Your task to perform on an android device: Open Google Chrome Image 0: 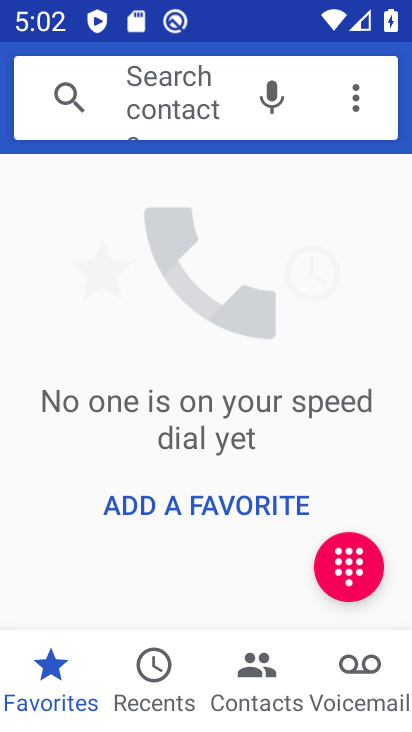
Step 0: press home button
Your task to perform on an android device: Open Google Chrome Image 1: 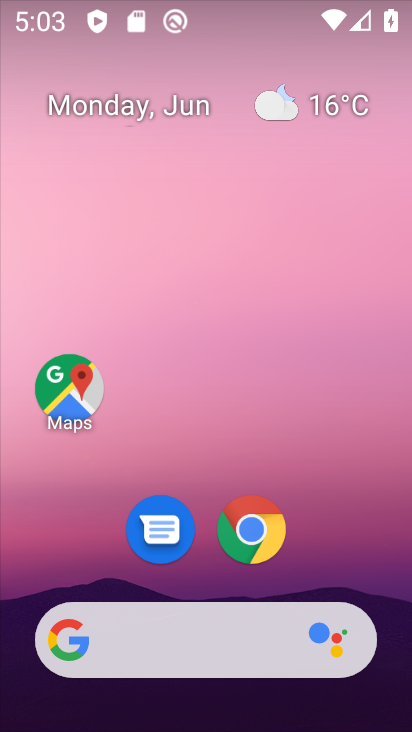
Step 1: drag from (392, 594) to (323, 134)
Your task to perform on an android device: Open Google Chrome Image 2: 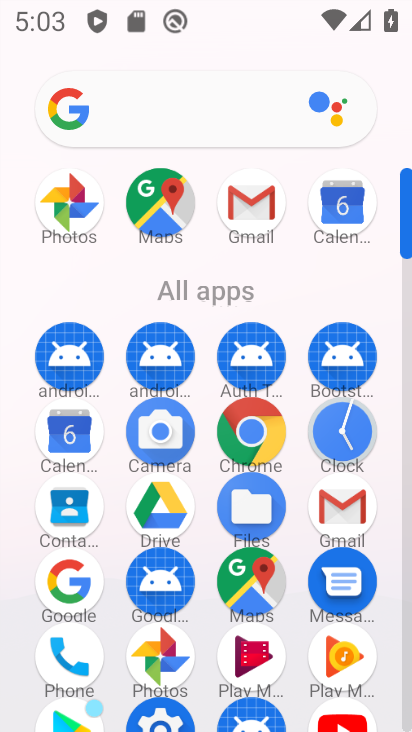
Step 2: click (261, 446)
Your task to perform on an android device: Open Google Chrome Image 3: 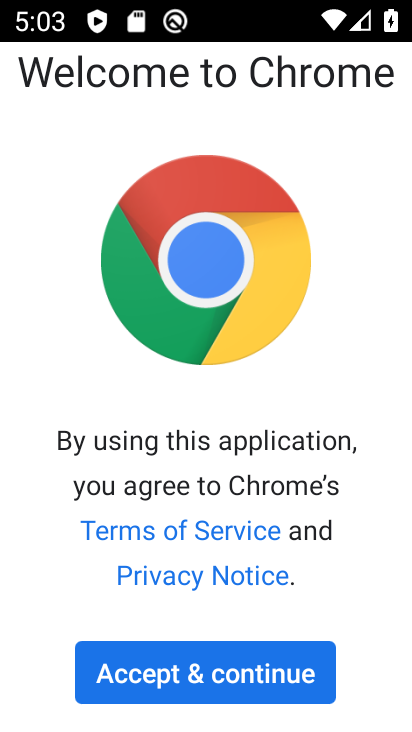
Step 3: click (296, 664)
Your task to perform on an android device: Open Google Chrome Image 4: 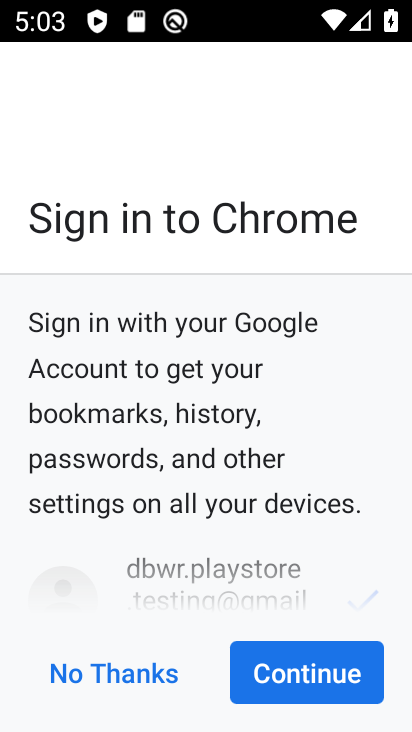
Step 4: click (331, 672)
Your task to perform on an android device: Open Google Chrome Image 5: 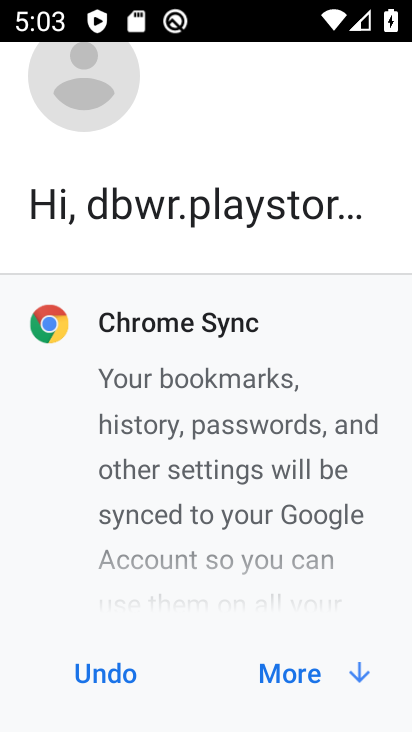
Step 5: click (331, 672)
Your task to perform on an android device: Open Google Chrome Image 6: 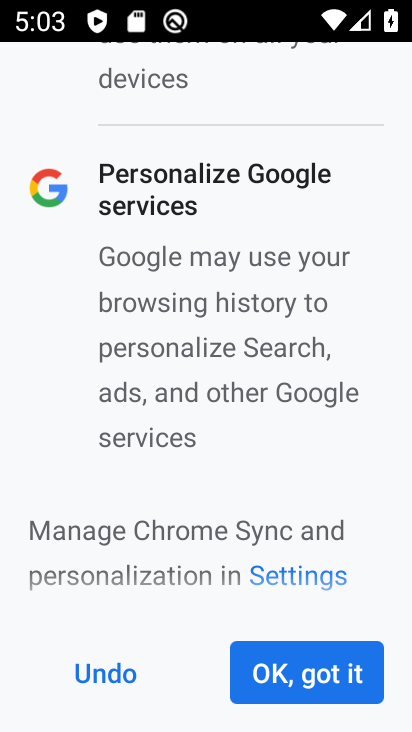
Step 6: click (331, 672)
Your task to perform on an android device: Open Google Chrome Image 7: 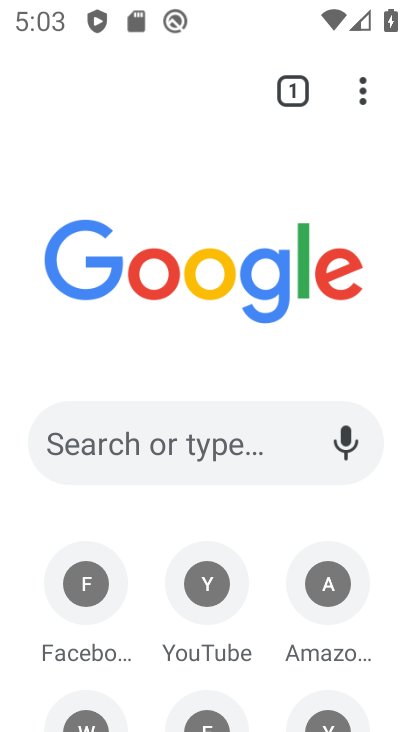
Step 7: task complete